Your task to perform on an android device: Open accessibility settings Image 0: 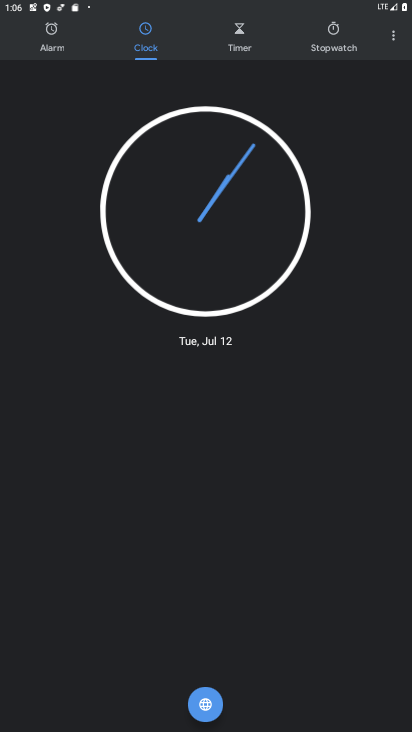
Step 0: press home button
Your task to perform on an android device: Open accessibility settings Image 1: 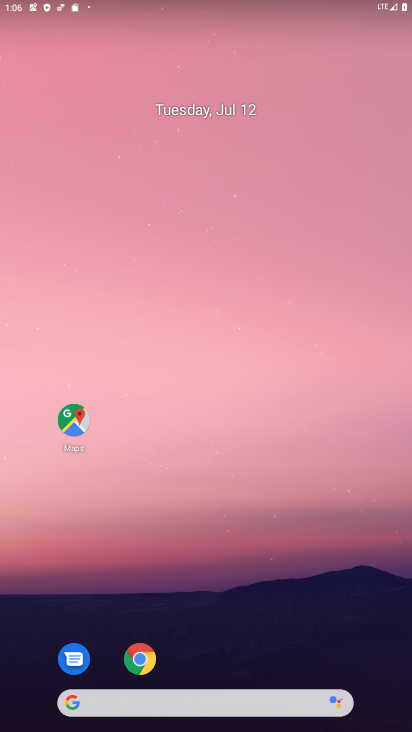
Step 1: drag from (214, 717) to (212, 2)
Your task to perform on an android device: Open accessibility settings Image 2: 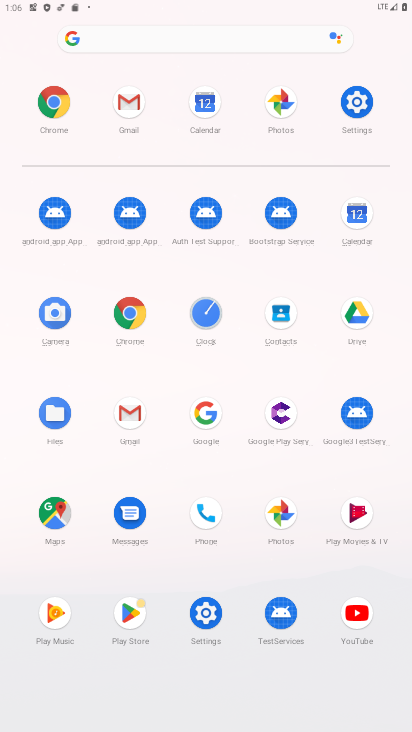
Step 2: click (357, 106)
Your task to perform on an android device: Open accessibility settings Image 3: 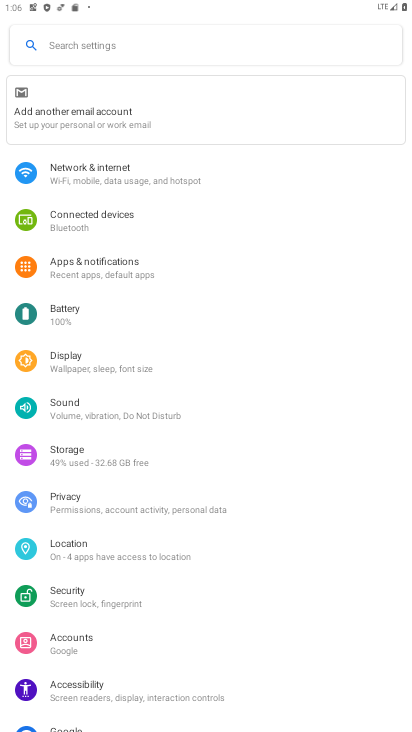
Step 3: click (66, 684)
Your task to perform on an android device: Open accessibility settings Image 4: 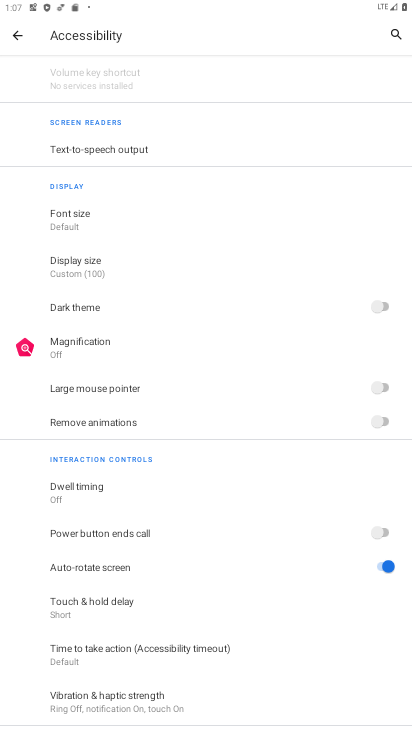
Step 4: task complete